Your task to perform on an android device: Check the weather Image 0: 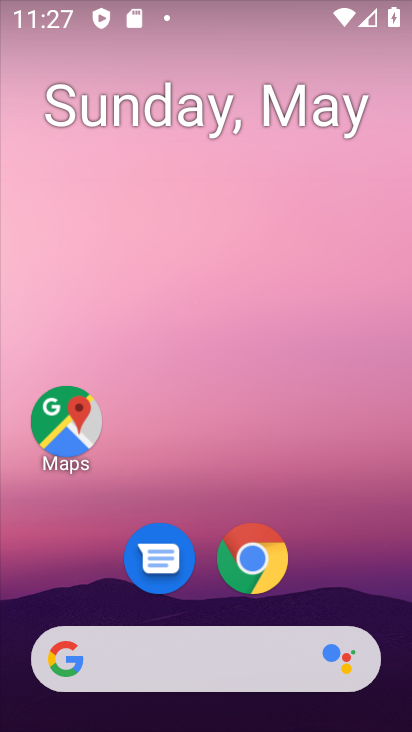
Step 0: click (233, 659)
Your task to perform on an android device: Check the weather Image 1: 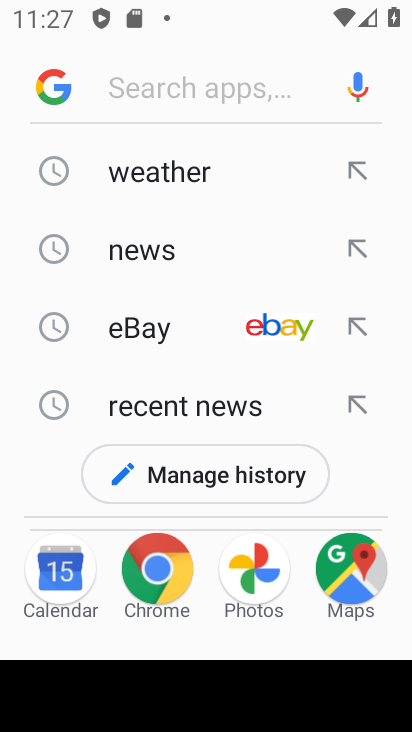
Step 1: click (188, 174)
Your task to perform on an android device: Check the weather Image 2: 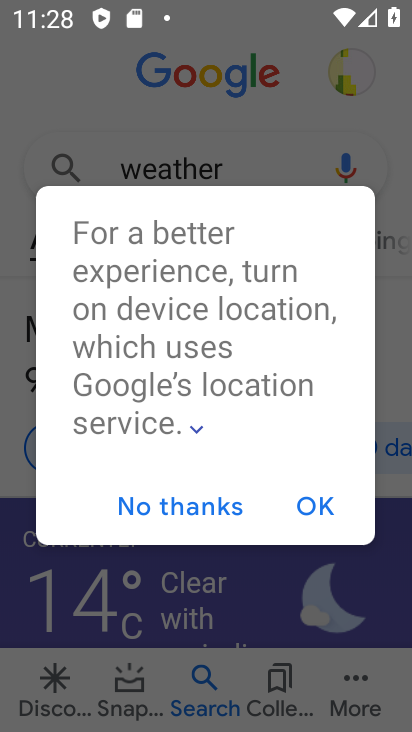
Step 2: click (198, 508)
Your task to perform on an android device: Check the weather Image 3: 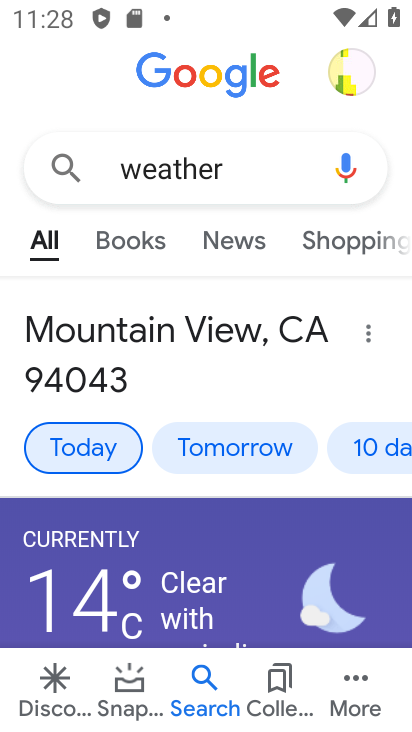
Step 3: task complete